Your task to perform on an android device: open chrome privacy settings Image 0: 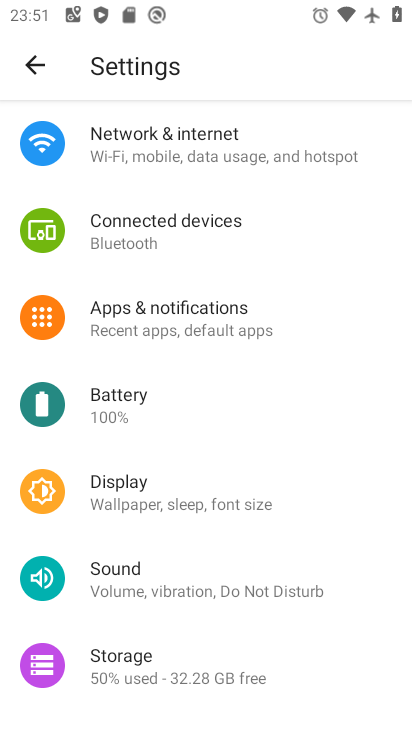
Step 0: drag from (248, 136) to (211, 568)
Your task to perform on an android device: open chrome privacy settings Image 1: 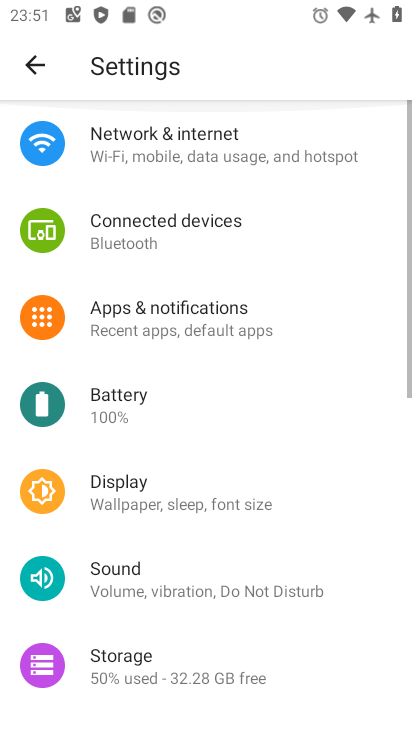
Step 1: drag from (219, 584) to (227, 143)
Your task to perform on an android device: open chrome privacy settings Image 2: 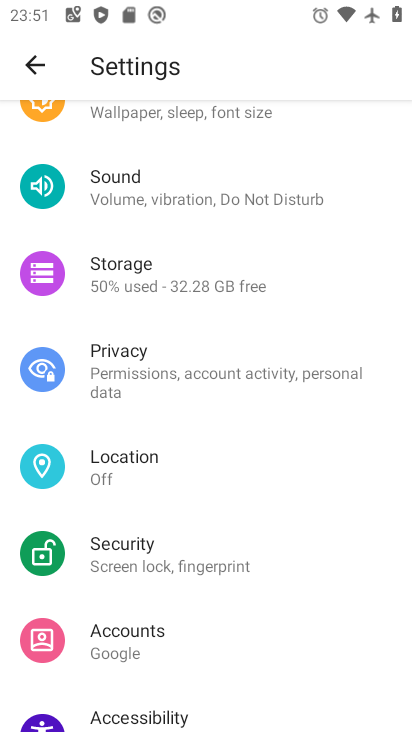
Step 2: press back button
Your task to perform on an android device: open chrome privacy settings Image 3: 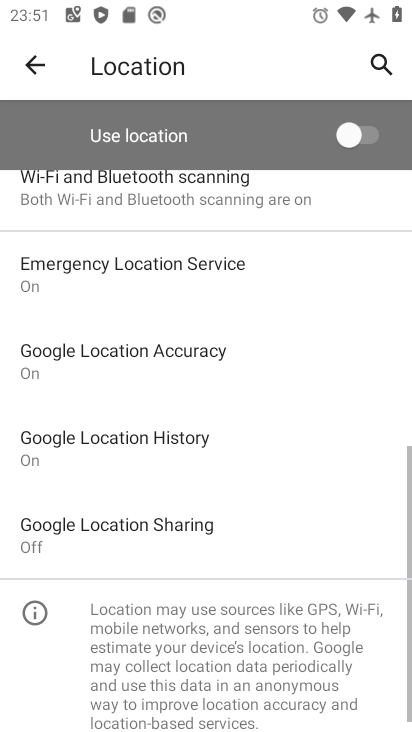
Step 3: press home button
Your task to perform on an android device: open chrome privacy settings Image 4: 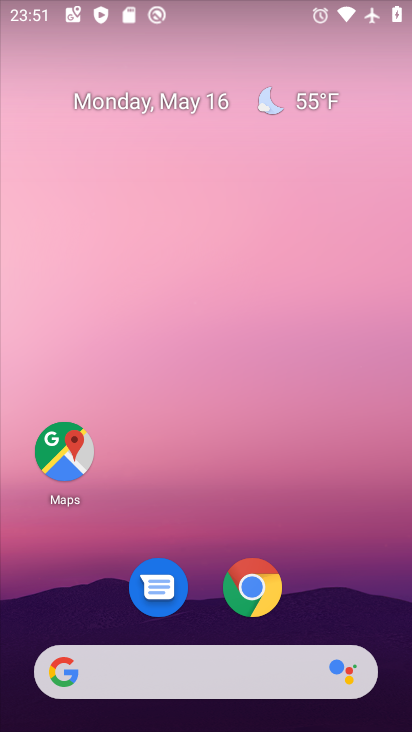
Step 4: drag from (316, 551) to (273, 24)
Your task to perform on an android device: open chrome privacy settings Image 5: 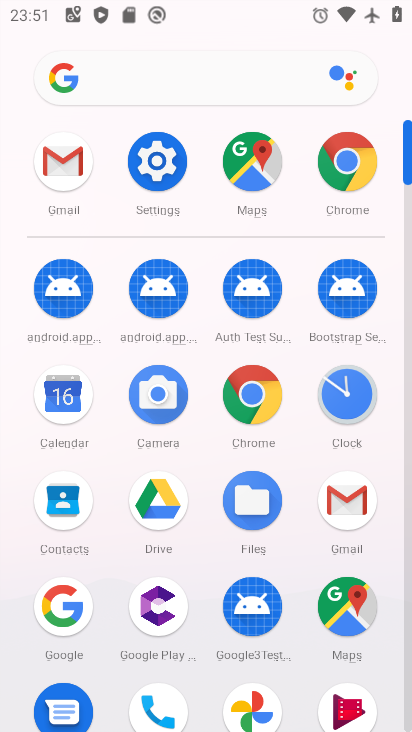
Step 5: drag from (13, 485) to (7, 134)
Your task to perform on an android device: open chrome privacy settings Image 6: 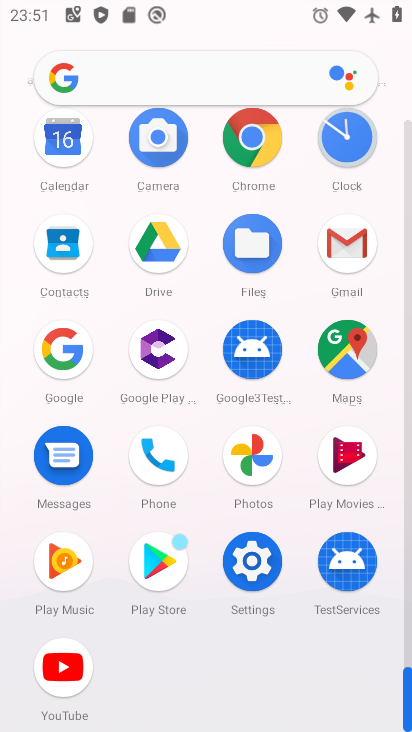
Step 6: click (250, 132)
Your task to perform on an android device: open chrome privacy settings Image 7: 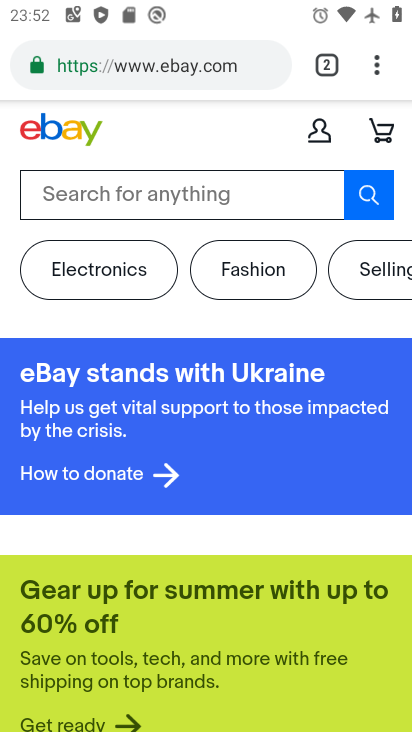
Step 7: drag from (372, 67) to (144, 636)
Your task to perform on an android device: open chrome privacy settings Image 8: 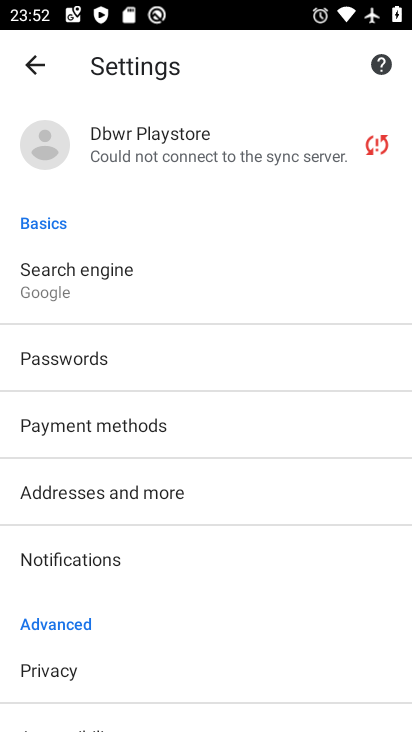
Step 8: click (80, 665)
Your task to perform on an android device: open chrome privacy settings Image 9: 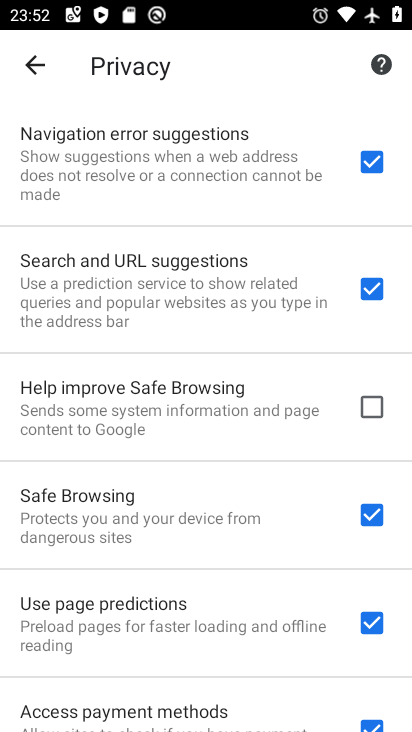
Step 9: task complete